Your task to perform on an android device: search for starred emails in the gmail app Image 0: 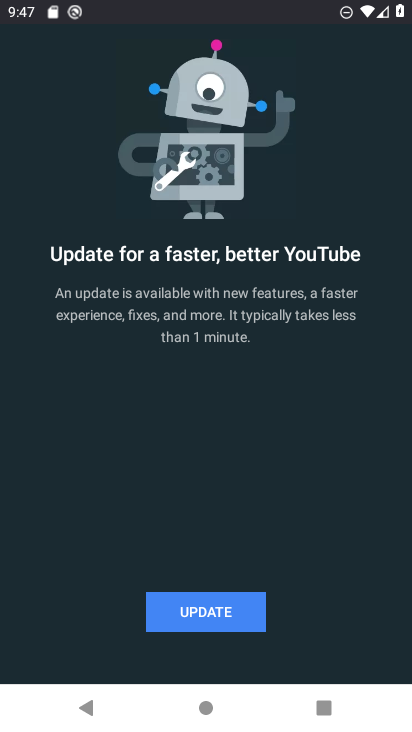
Step 0: press home button
Your task to perform on an android device: search for starred emails in the gmail app Image 1: 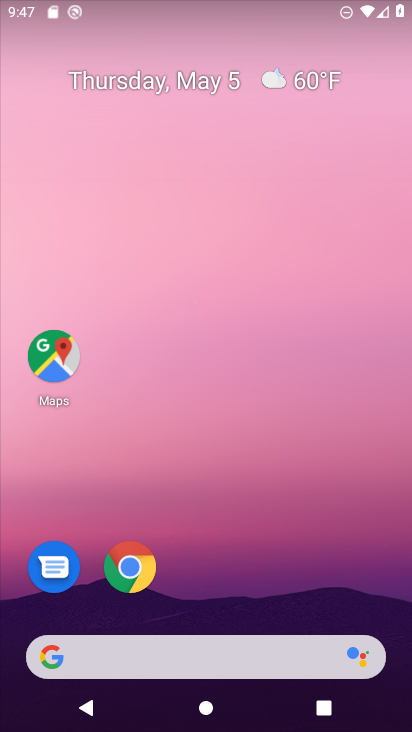
Step 1: drag from (208, 730) to (209, 123)
Your task to perform on an android device: search for starred emails in the gmail app Image 2: 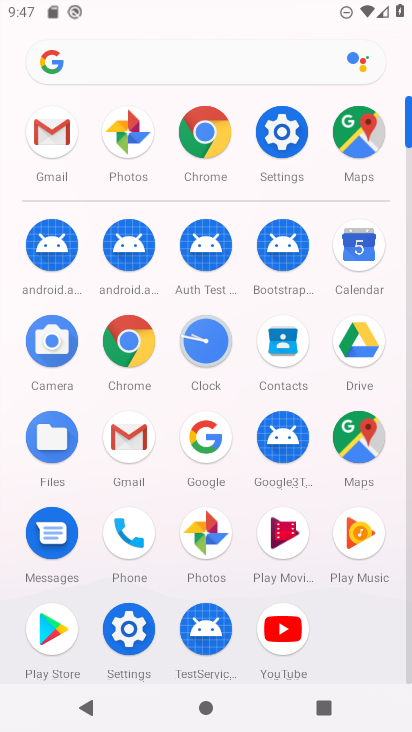
Step 2: click (132, 426)
Your task to perform on an android device: search for starred emails in the gmail app Image 3: 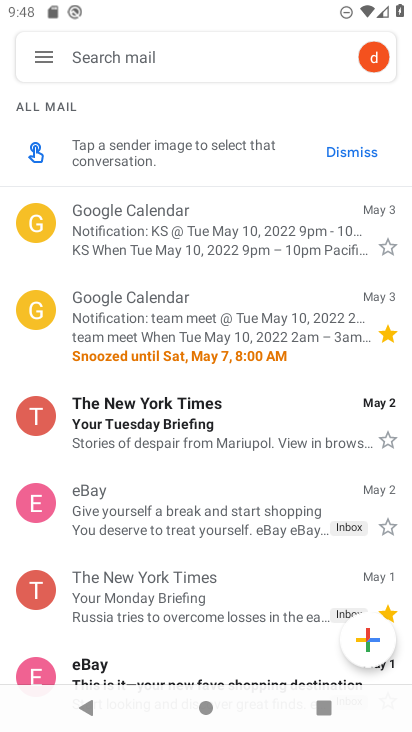
Step 3: click (42, 59)
Your task to perform on an android device: search for starred emails in the gmail app Image 4: 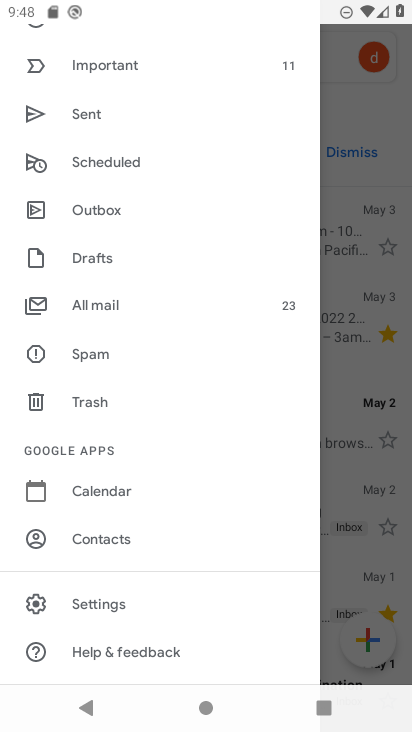
Step 4: drag from (177, 140) to (176, 371)
Your task to perform on an android device: search for starred emails in the gmail app Image 5: 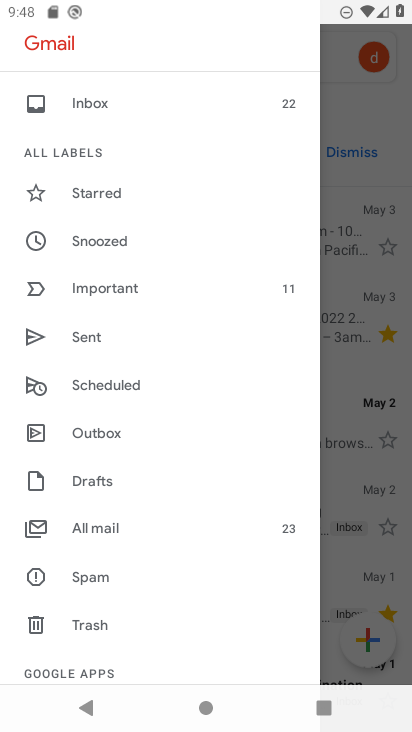
Step 5: click (96, 193)
Your task to perform on an android device: search for starred emails in the gmail app Image 6: 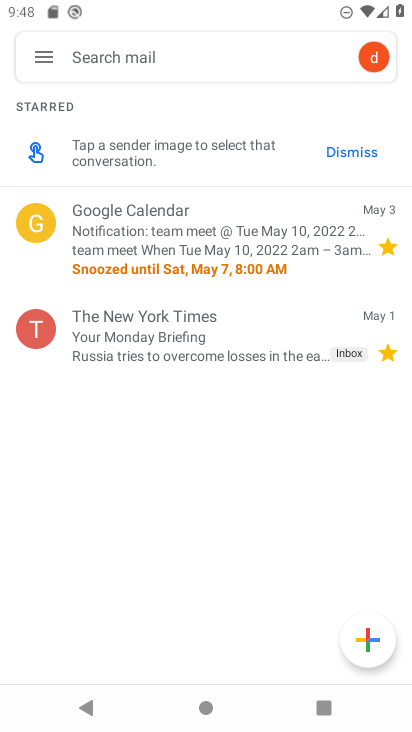
Step 6: task complete